Your task to perform on an android device: What's the weather going to be tomorrow? Image 0: 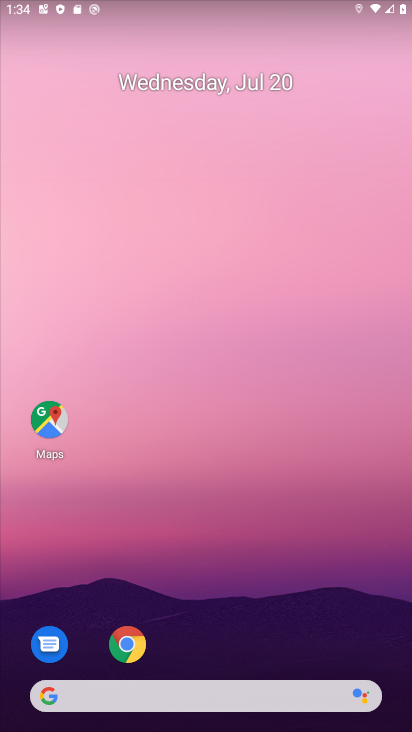
Step 0: press home button
Your task to perform on an android device: What's the weather going to be tomorrow? Image 1: 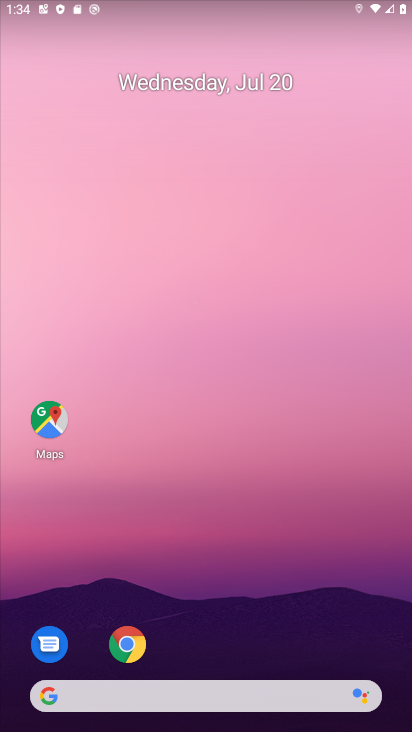
Step 1: click (51, 706)
Your task to perform on an android device: What's the weather going to be tomorrow? Image 2: 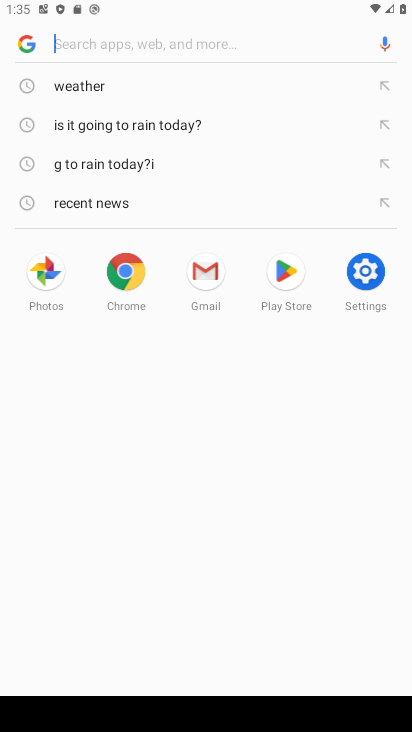
Step 2: type "weather going to be tomorrow?"
Your task to perform on an android device: What's the weather going to be tomorrow? Image 3: 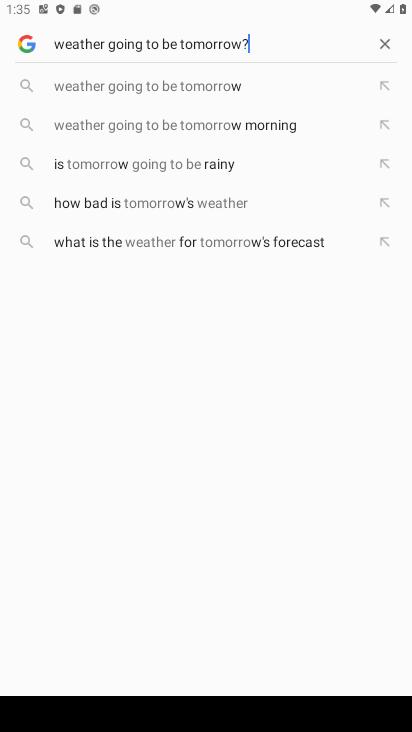
Step 3: press enter
Your task to perform on an android device: What's the weather going to be tomorrow? Image 4: 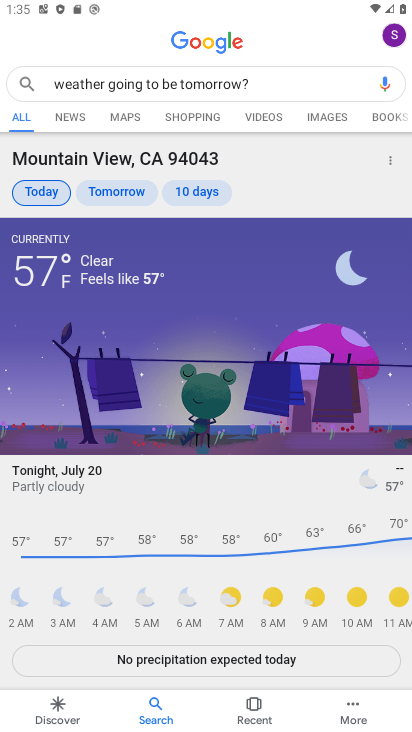
Step 4: task complete